Your task to perform on an android device: open app "Move to iOS" (install if not already installed), go to login, and select forgot password Image 0: 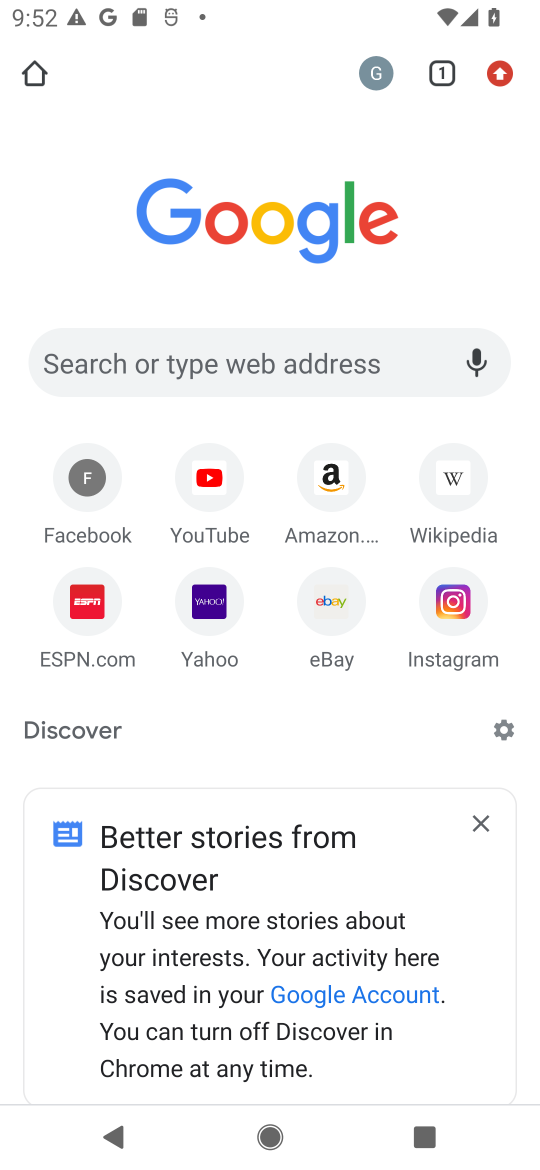
Step 0: press home button
Your task to perform on an android device: open app "Move to iOS" (install if not already installed), go to login, and select forgot password Image 1: 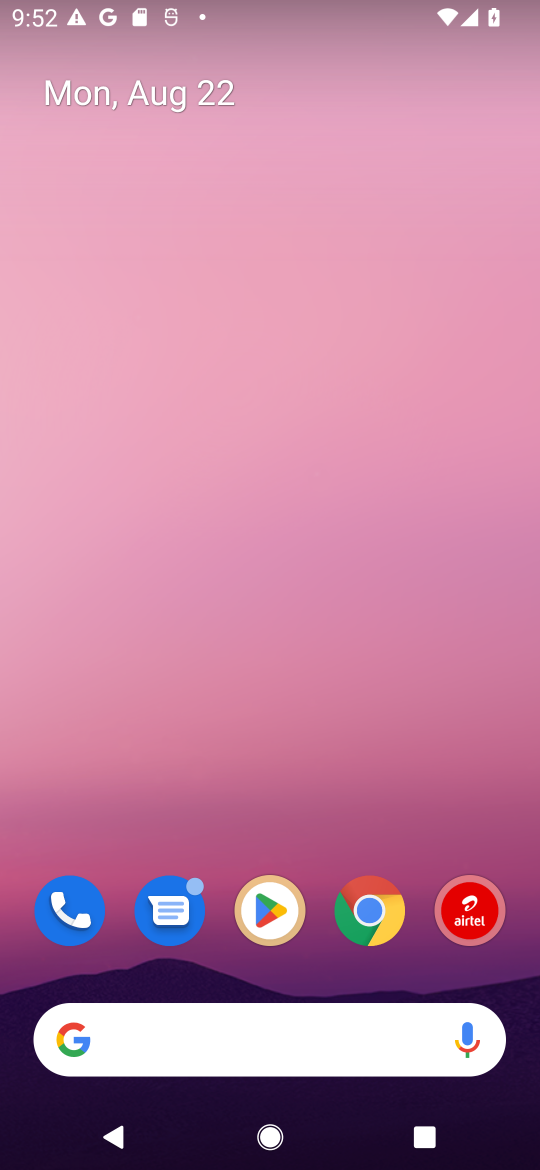
Step 1: click (283, 922)
Your task to perform on an android device: open app "Move to iOS" (install if not already installed), go to login, and select forgot password Image 2: 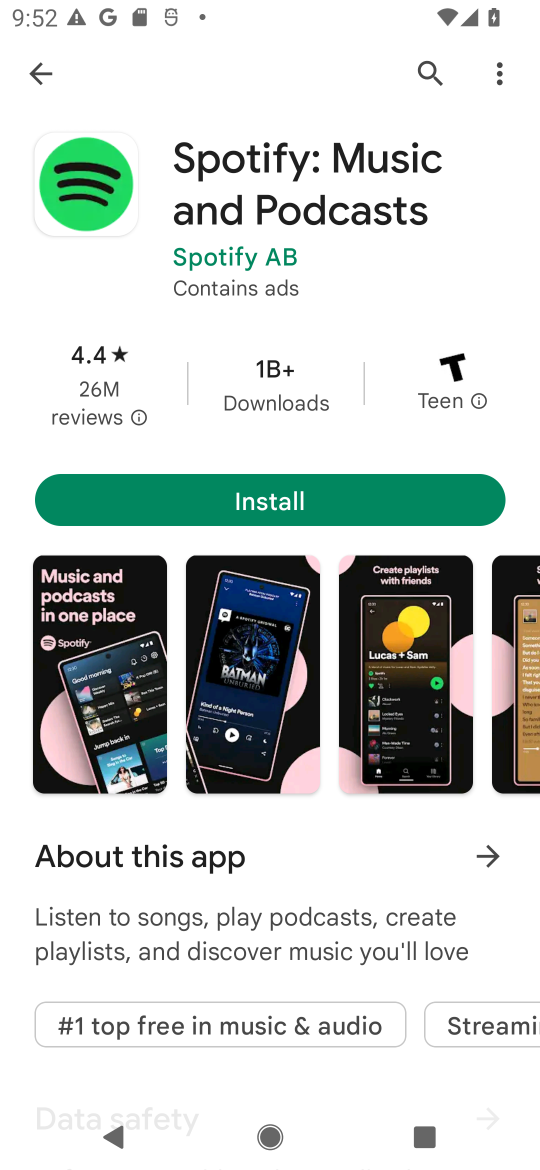
Step 2: click (421, 86)
Your task to perform on an android device: open app "Move to iOS" (install if not already installed), go to login, and select forgot password Image 3: 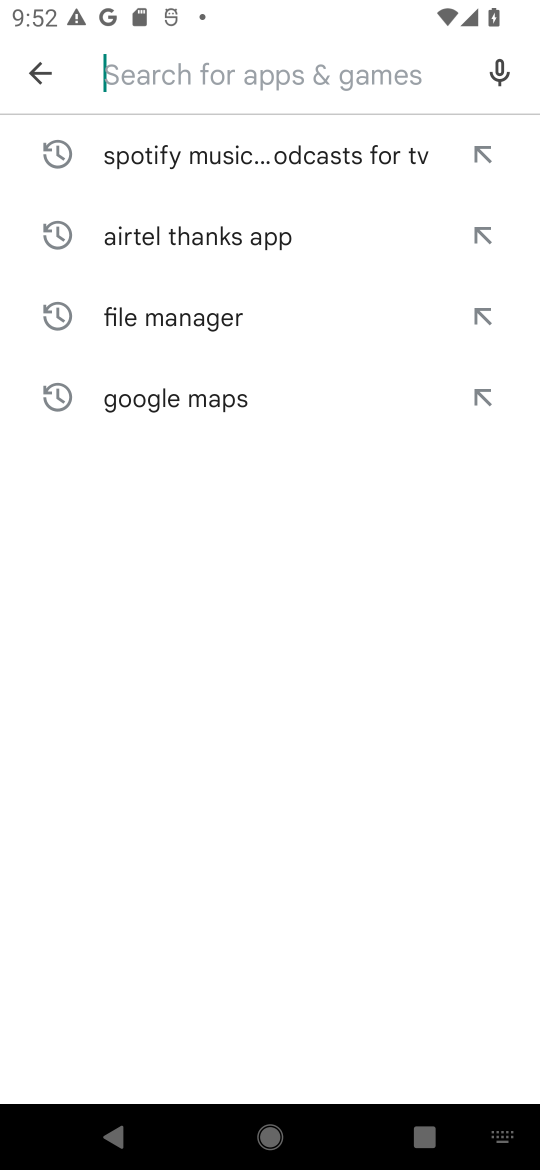
Step 3: type "Move to iOS"
Your task to perform on an android device: open app "Move to iOS" (install if not already installed), go to login, and select forgot password Image 4: 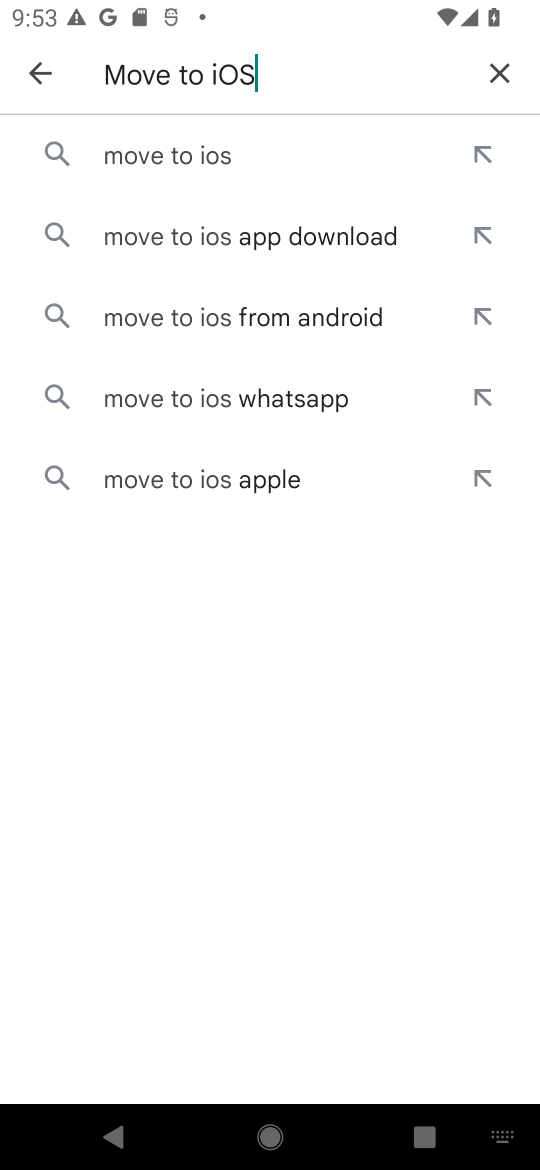
Step 4: click (192, 164)
Your task to perform on an android device: open app "Move to iOS" (install if not already installed), go to login, and select forgot password Image 5: 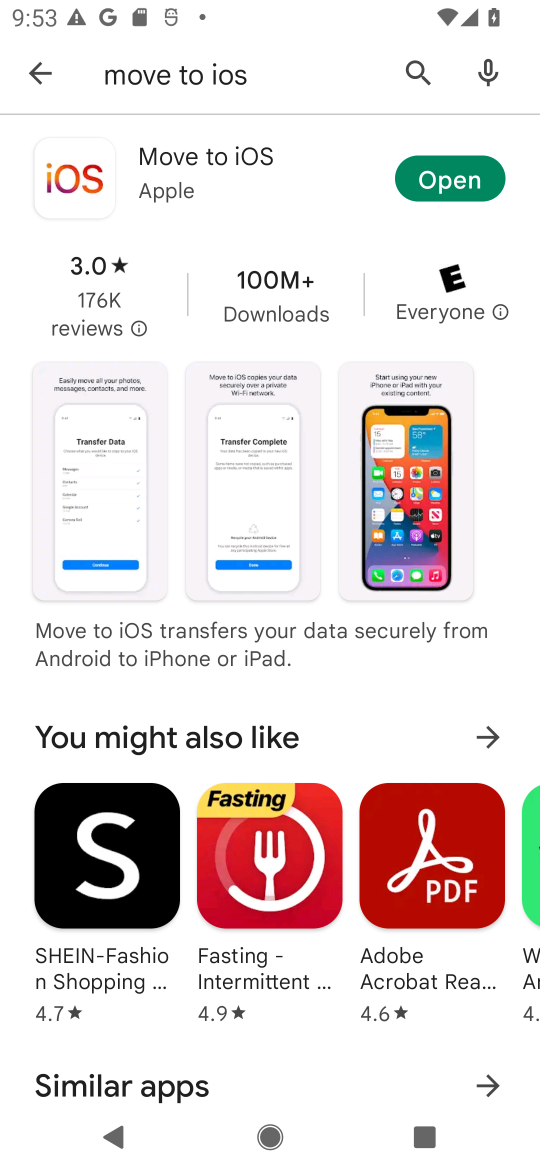
Step 5: click (441, 188)
Your task to perform on an android device: open app "Move to iOS" (install if not already installed), go to login, and select forgot password Image 6: 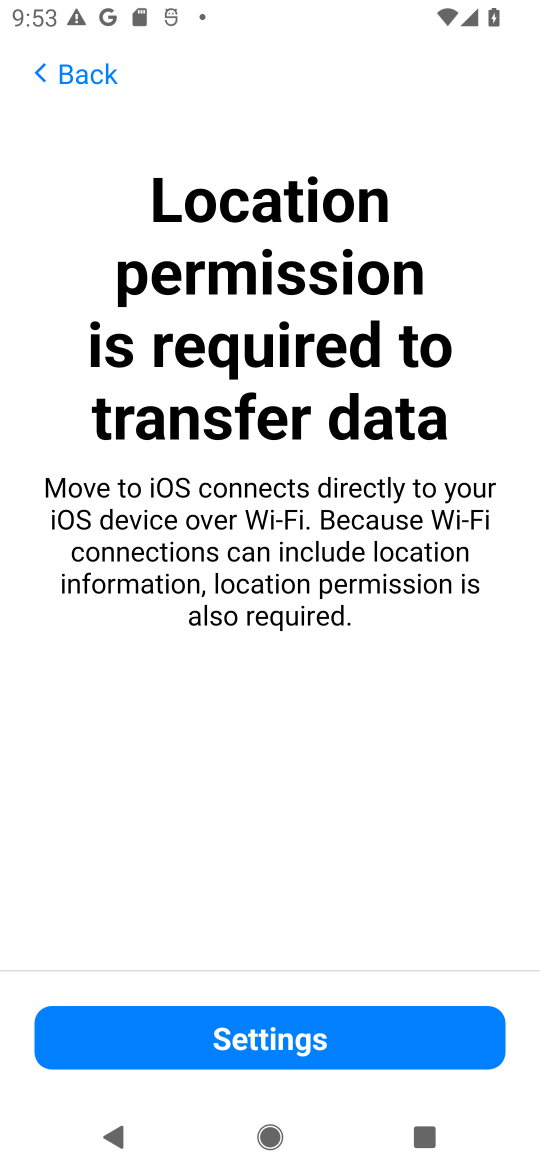
Step 6: task complete